Your task to perform on an android device: read, delete, or share a saved page in the chrome app Image 0: 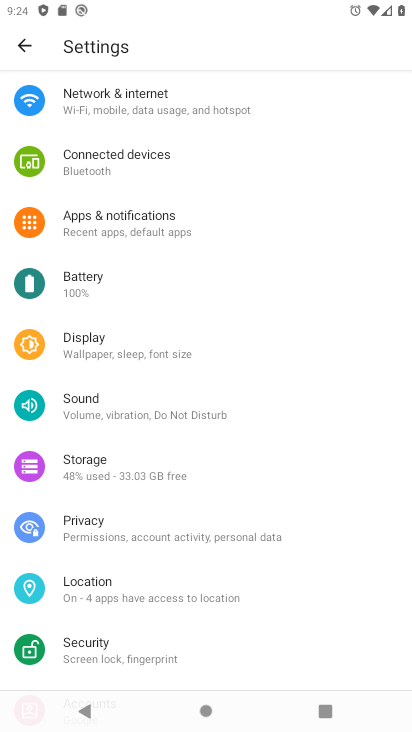
Step 0: drag from (181, 518) to (168, 114)
Your task to perform on an android device: read, delete, or share a saved page in the chrome app Image 1: 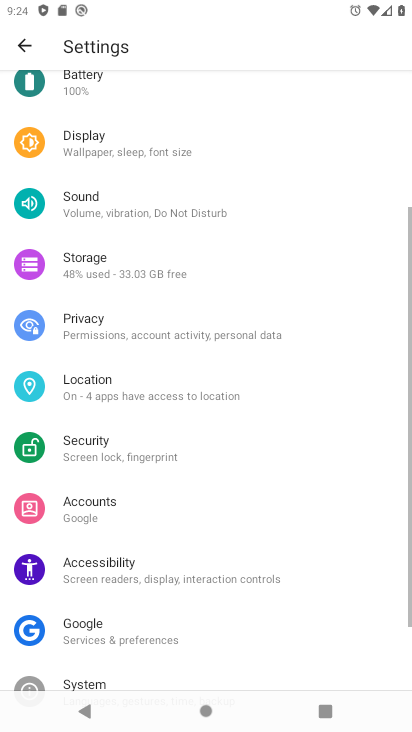
Step 1: drag from (187, 262) to (224, 107)
Your task to perform on an android device: read, delete, or share a saved page in the chrome app Image 2: 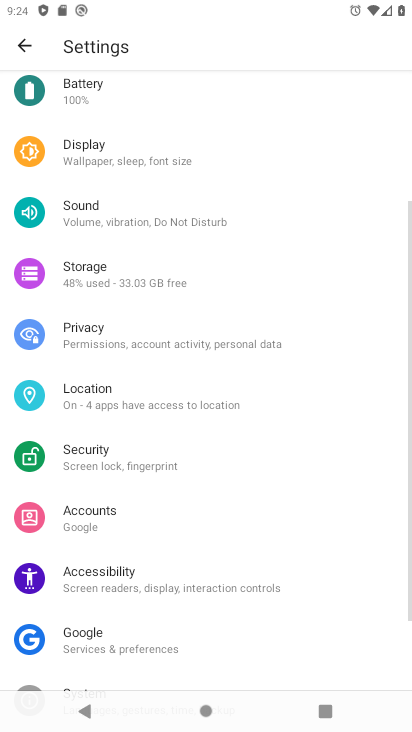
Step 2: click (31, 42)
Your task to perform on an android device: read, delete, or share a saved page in the chrome app Image 3: 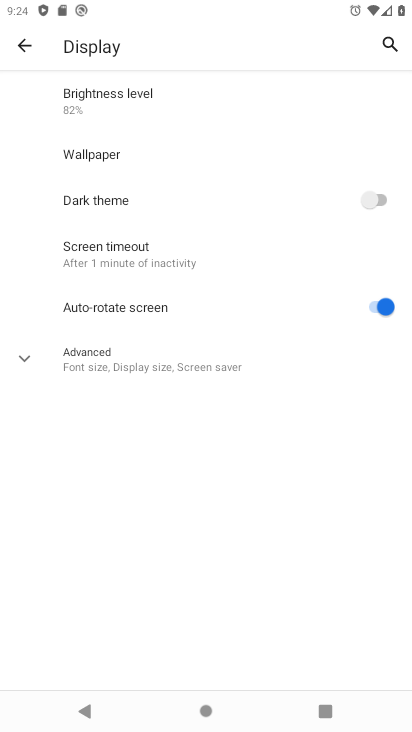
Step 3: click (21, 46)
Your task to perform on an android device: read, delete, or share a saved page in the chrome app Image 4: 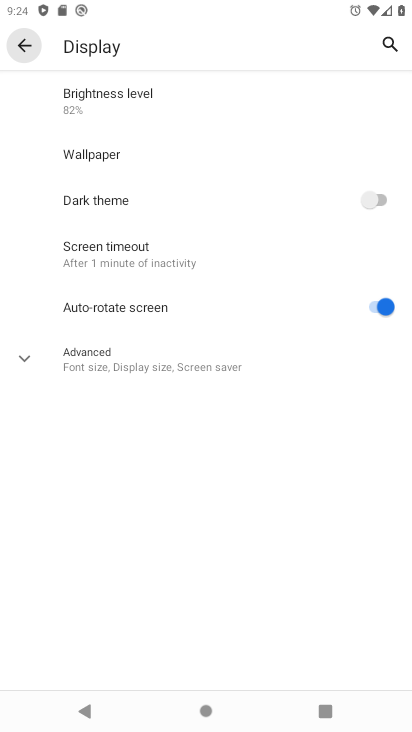
Step 4: click (24, 46)
Your task to perform on an android device: read, delete, or share a saved page in the chrome app Image 5: 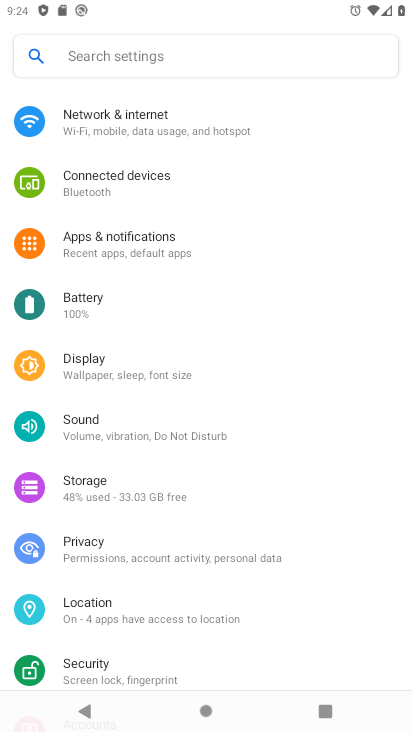
Step 5: press home button
Your task to perform on an android device: read, delete, or share a saved page in the chrome app Image 6: 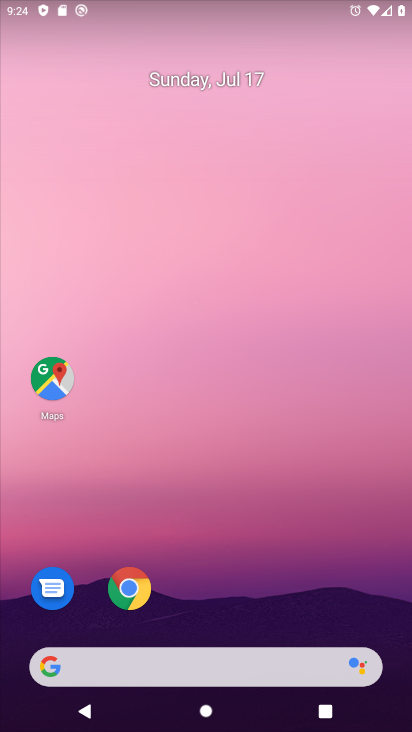
Step 6: drag from (213, 549) to (193, 112)
Your task to perform on an android device: read, delete, or share a saved page in the chrome app Image 7: 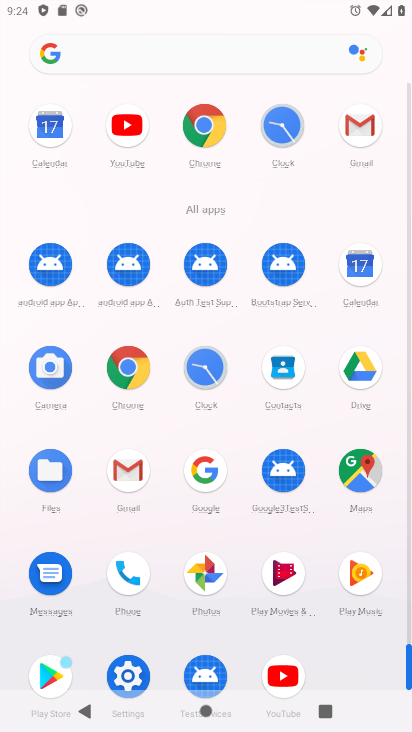
Step 7: click (204, 135)
Your task to perform on an android device: read, delete, or share a saved page in the chrome app Image 8: 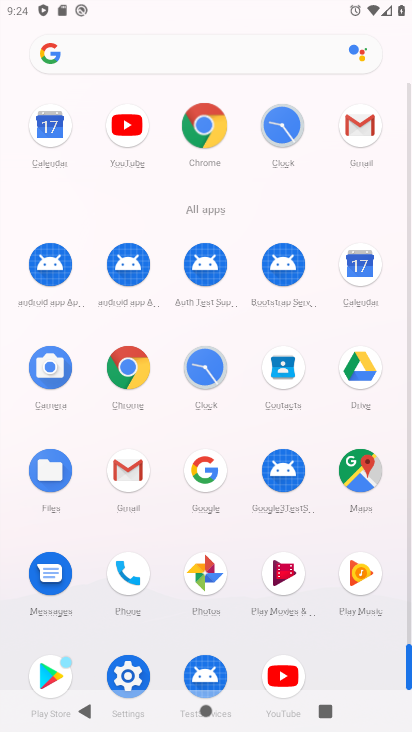
Step 8: click (200, 141)
Your task to perform on an android device: read, delete, or share a saved page in the chrome app Image 9: 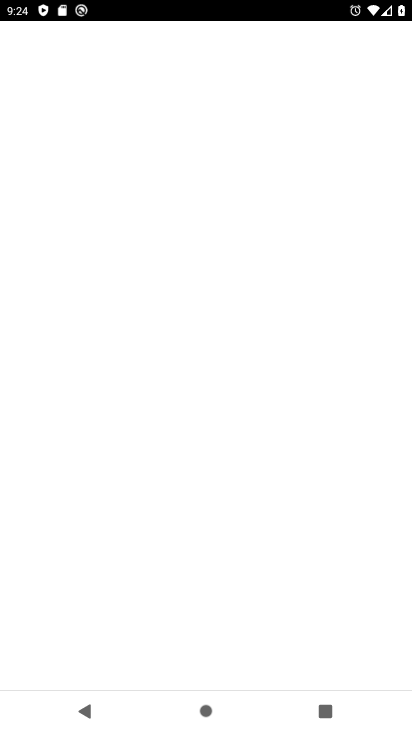
Step 9: click (200, 141)
Your task to perform on an android device: read, delete, or share a saved page in the chrome app Image 10: 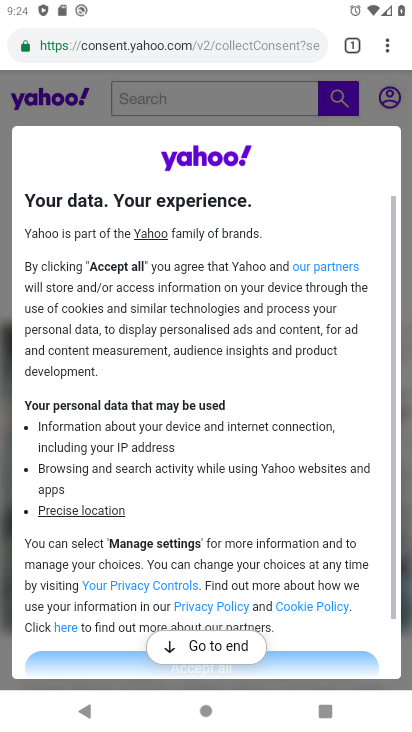
Step 10: drag from (379, 41) to (229, 312)
Your task to perform on an android device: read, delete, or share a saved page in the chrome app Image 11: 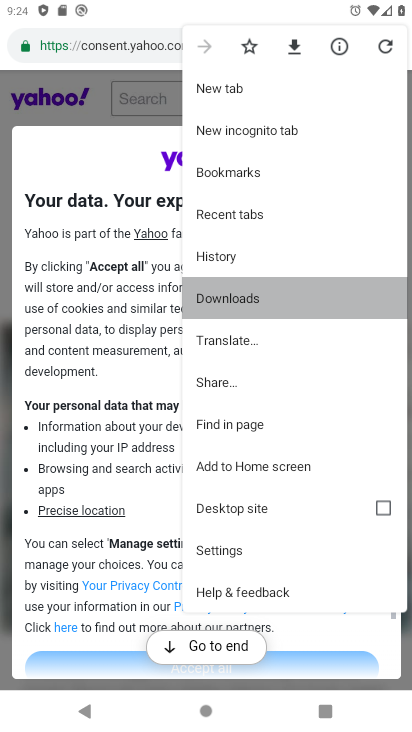
Step 11: click (230, 312)
Your task to perform on an android device: read, delete, or share a saved page in the chrome app Image 12: 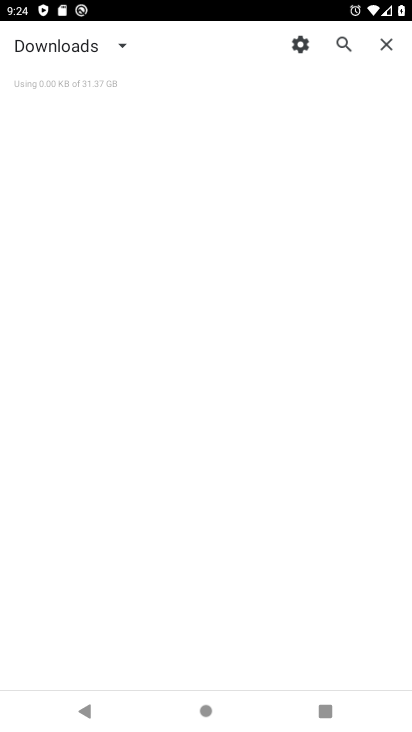
Step 12: click (118, 41)
Your task to perform on an android device: read, delete, or share a saved page in the chrome app Image 13: 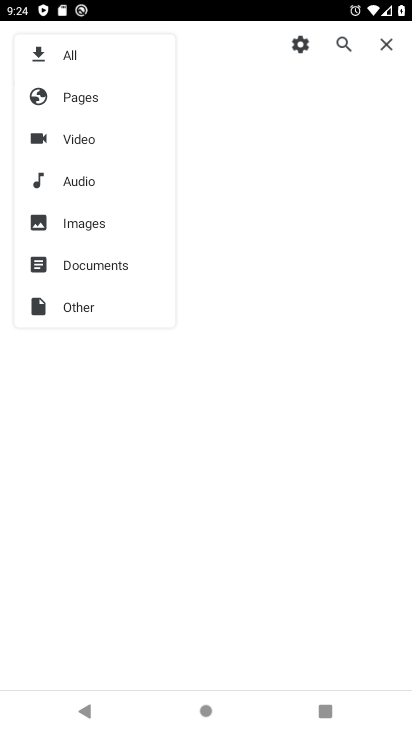
Step 13: click (81, 145)
Your task to perform on an android device: read, delete, or share a saved page in the chrome app Image 14: 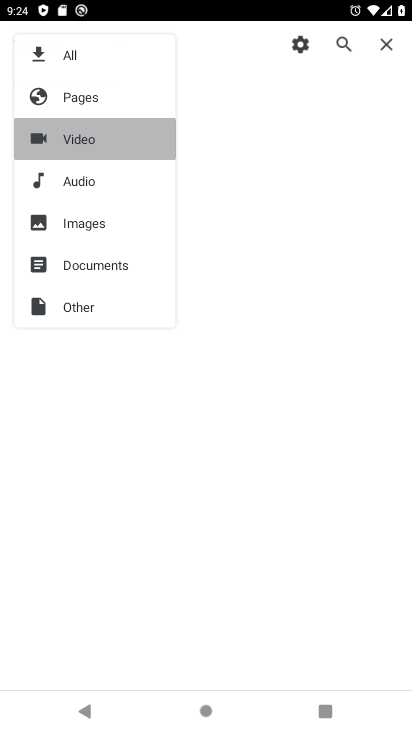
Step 14: click (81, 145)
Your task to perform on an android device: read, delete, or share a saved page in the chrome app Image 15: 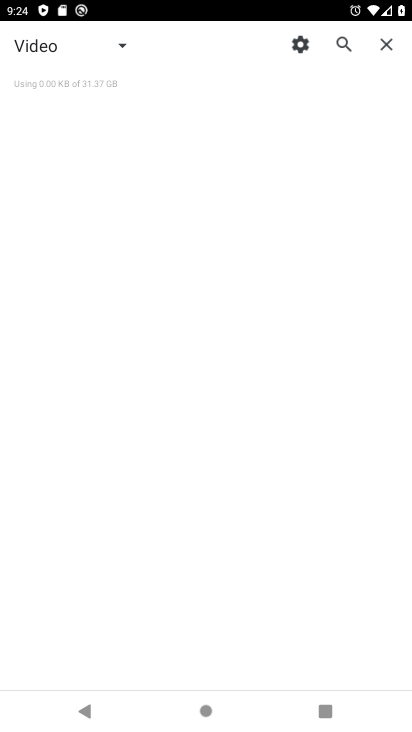
Step 15: task complete